Your task to perform on an android device: turn on data saver in the chrome app Image 0: 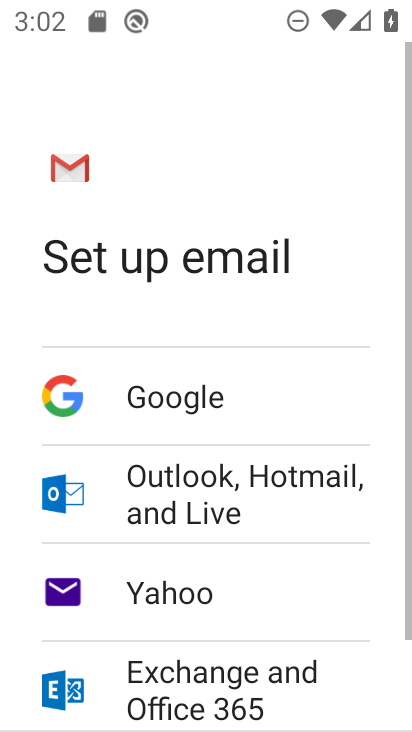
Step 0: press home button
Your task to perform on an android device: turn on data saver in the chrome app Image 1: 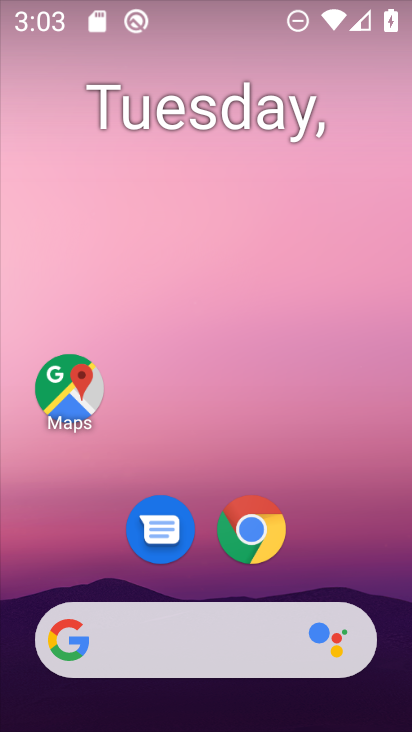
Step 1: click (246, 514)
Your task to perform on an android device: turn on data saver in the chrome app Image 2: 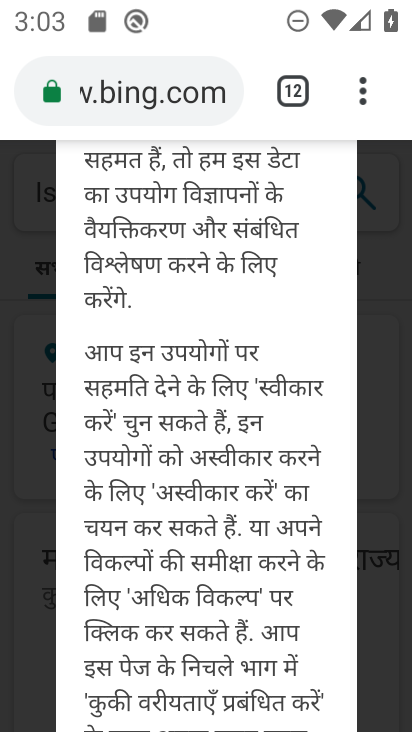
Step 2: click (360, 96)
Your task to perform on an android device: turn on data saver in the chrome app Image 3: 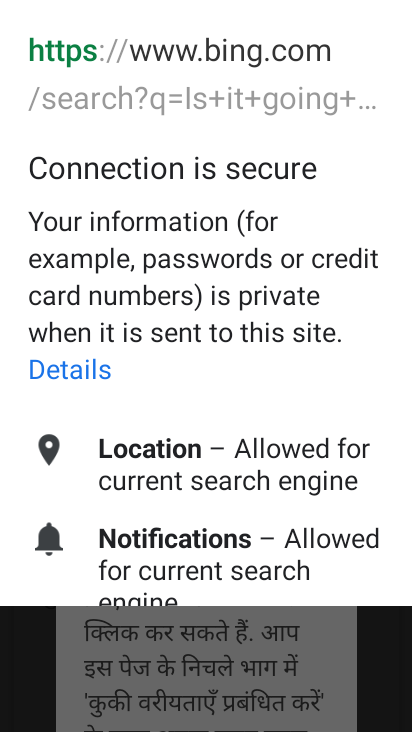
Step 3: press back button
Your task to perform on an android device: turn on data saver in the chrome app Image 4: 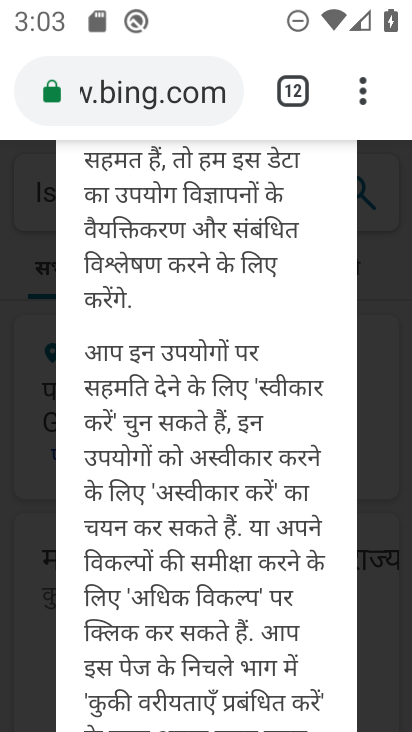
Step 4: click (361, 100)
Your task to perform on an android device: turn on data saver in the chrome app Image 5: 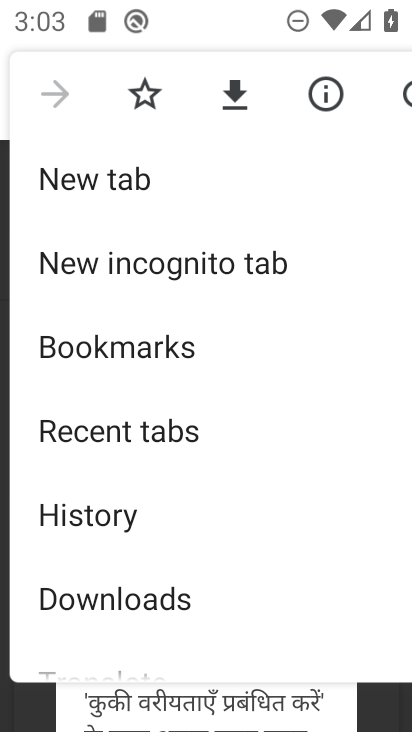
Step 5: drag from (177, 571) to (225, 318)
Your task to perform on an android device: turn on data saver in the chrome app Image 6: 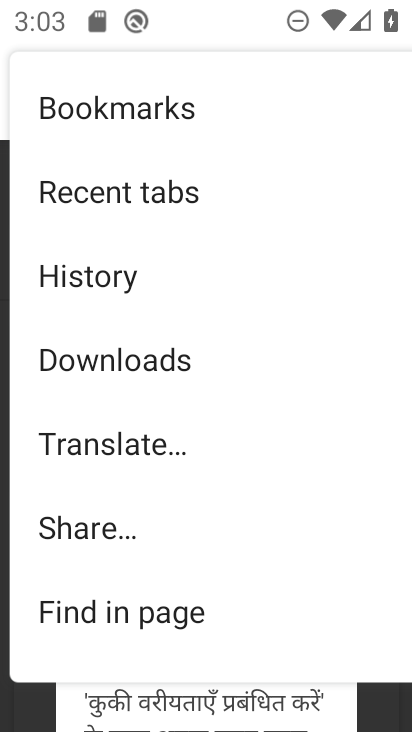
Step 6: drag from (128, 553) to (224, 162)
Your task to perform on an android device: turn on data saver in the chrome app Image 7: 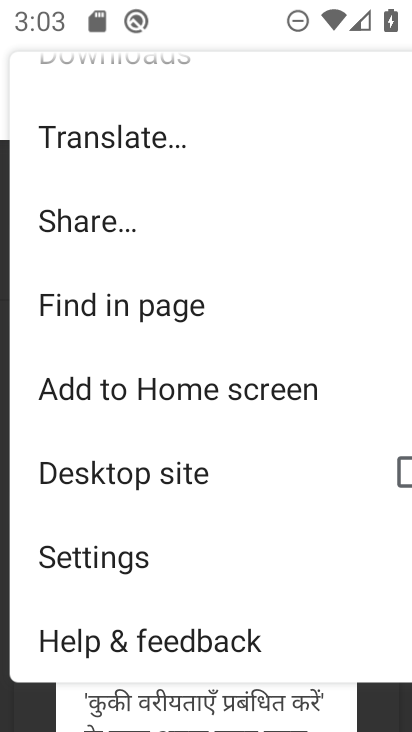
Step 7: click (167, 538)
Your task to perform on an android device: turn on data saver in the chrome app Image 8: 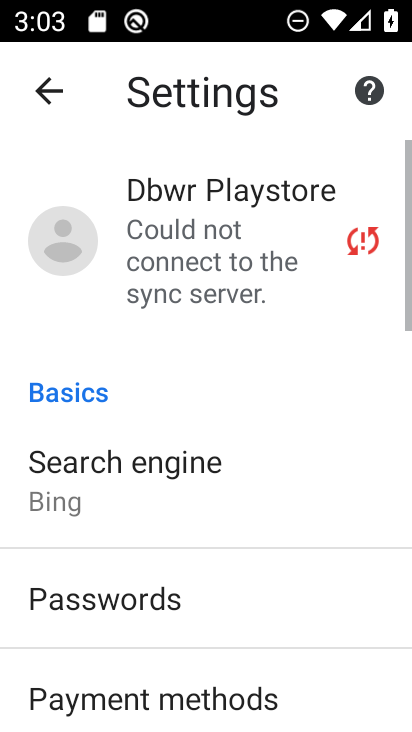
Step 8: drag from (98, 600) to (235, 189)
Your task to perform on an android device: turn on data saver in the chrome app Image 9: 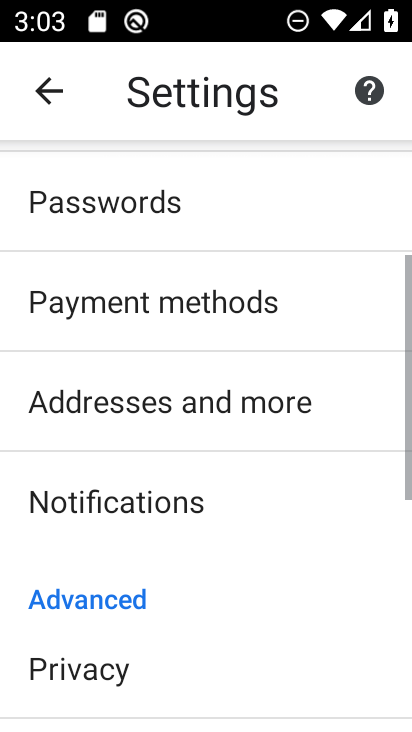
Step 9: drag from (176, 597) to (239, 322)
Your task to perform on an android device: turn on data saver in the chrome app Image 10: 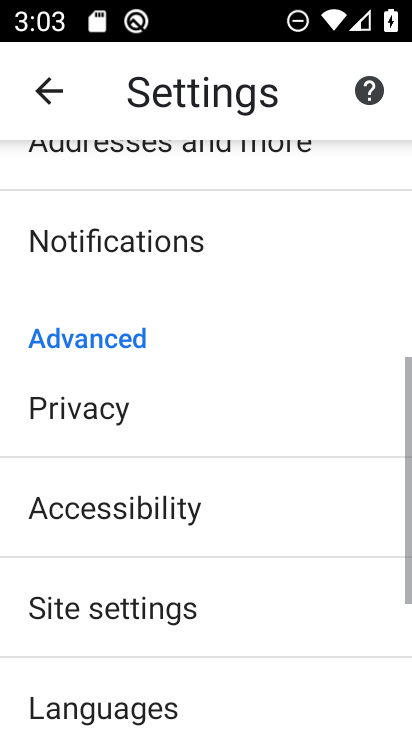
Step 10: drag from (106, 654) to (213, 318)
Your task to perform on an android device: turn on data saver in the chrome app Image 11: 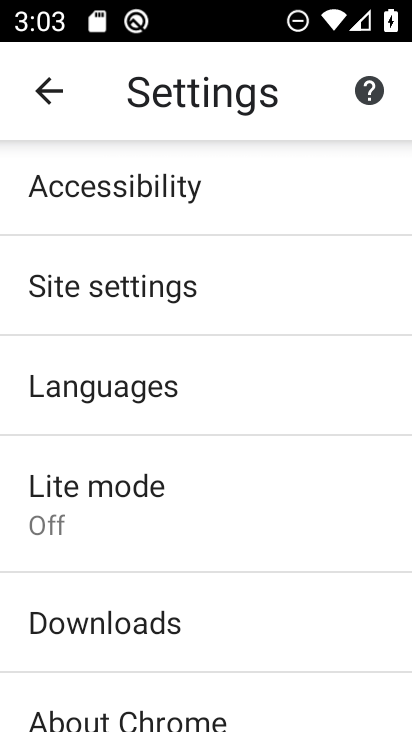
Step 11: click (150, 480)
Your task to perform on an android device: turn on data saver in the chrome app Image 12: 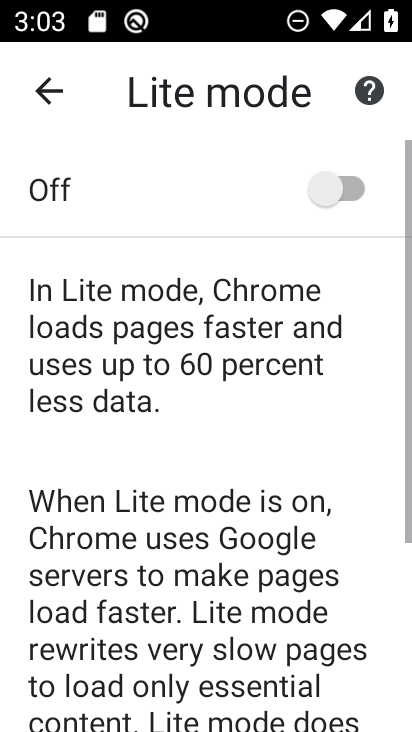
Step 12: click (355, 188)
Your task to perform on an android device: turn on data saver in the chrome app Image 13: 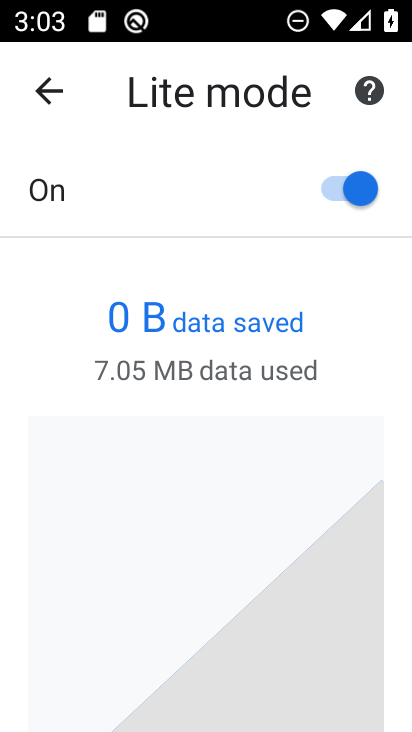
Step 13: task complete